Your task to perform on an android device: Toggle the flashlight Image 0: 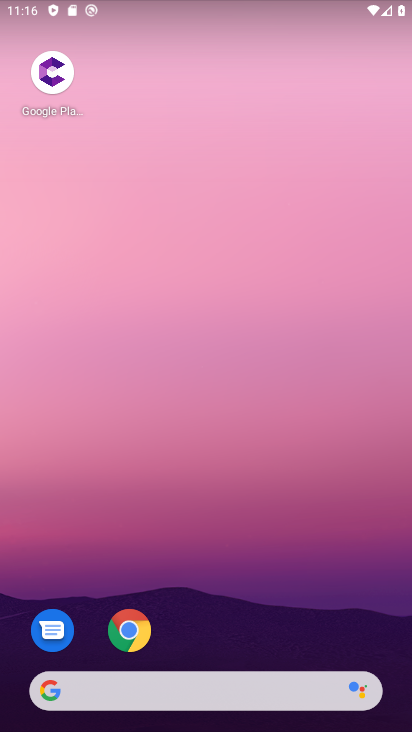
Step 0: drag from (257, 9) to (281, 408)
Your task to perform on an android device: Toggle the flashlight Image 1: 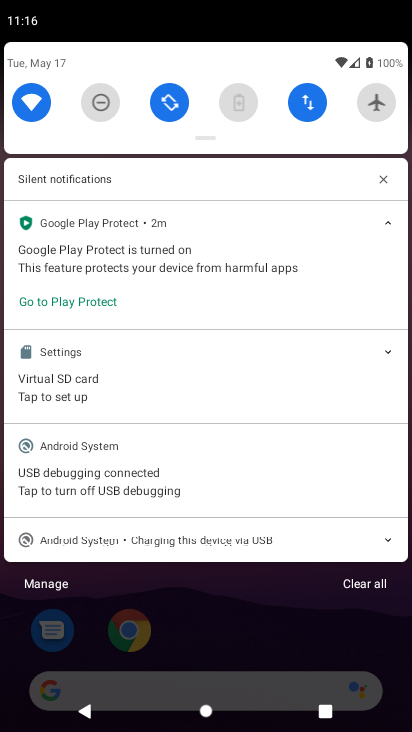
Step 1: drag from (210, 122) to (231, 461)
Your task to perform on an android device: Toggle the flashlight Image 2: 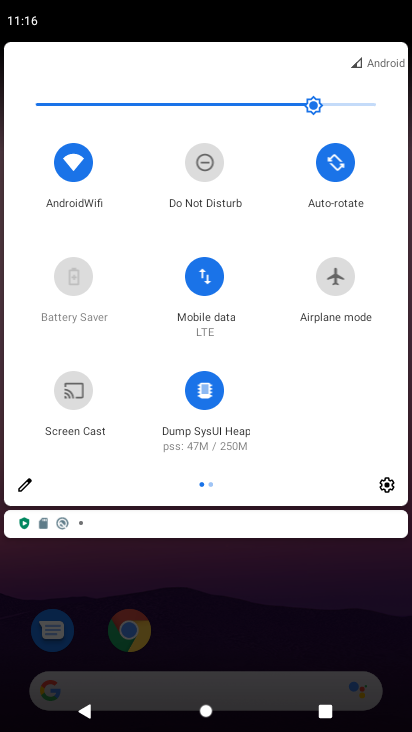
Step 2: click (30, 482)
Your task to perform on an android device: Toggle the flashlight Image 3: 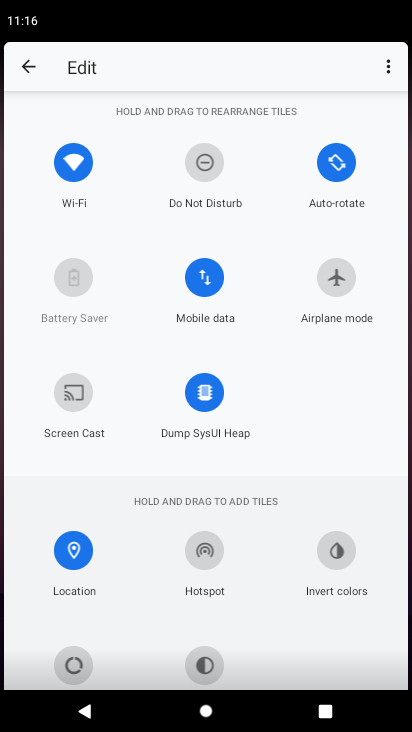
Step 3: task complete